Your task to perform on an android device: see sites visited before in the chrome app Image 0: 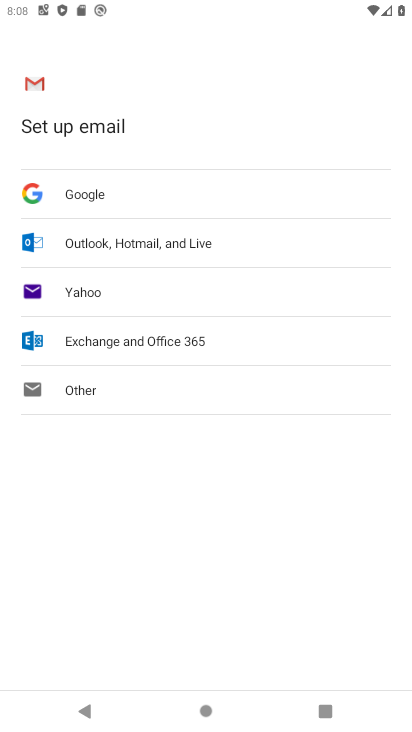
Step 0: press home button
Your task to perform on an android device: see sites visited before in the chrome app Image 1: 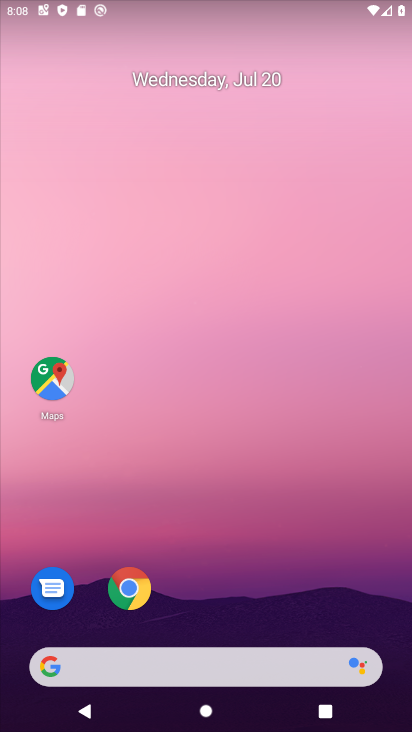
Step 1: click (143, 590)
Your task to perform on an android device: see sites visited before in the chrome app Image 2: 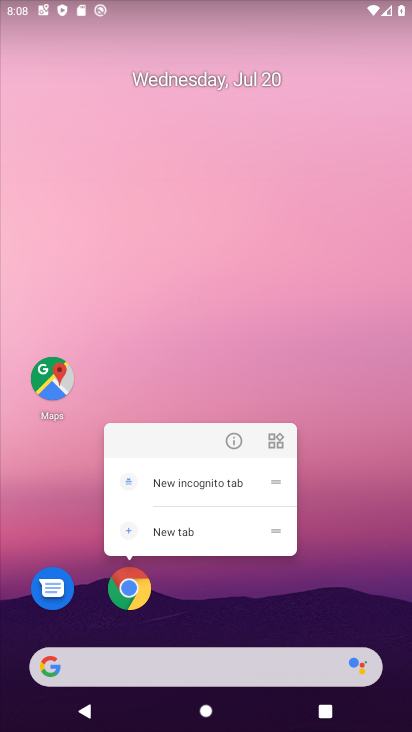
Step 2: click (144, 590)
Your task to perform on an android device: see sites visited before in the chrome app Image 3: 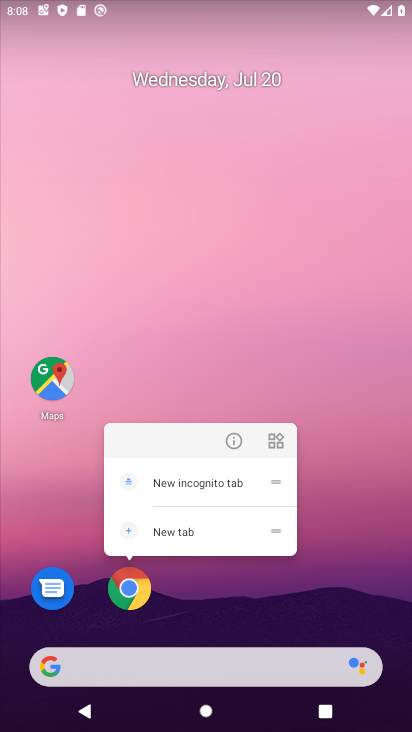
Step 3: click (144, 590)
Your task to perform on an android device: see sites visited before in the chrome app Image 4: 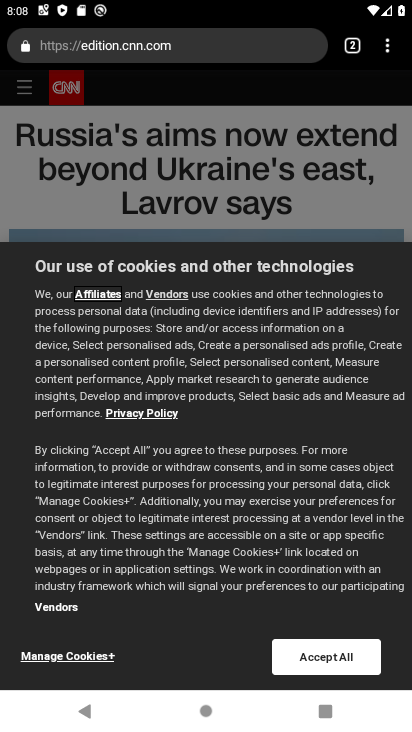
Step 4: click (390, 41)
Your task to perform on an android device: see sites visited before in the chrome app Image 5: 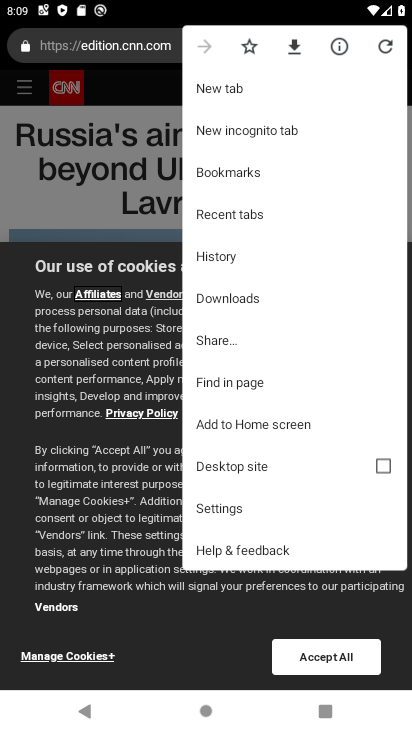
Step 5: click (251, 215)
Your task to perform on an android device: see sites visited before in the chrome app Image 6: 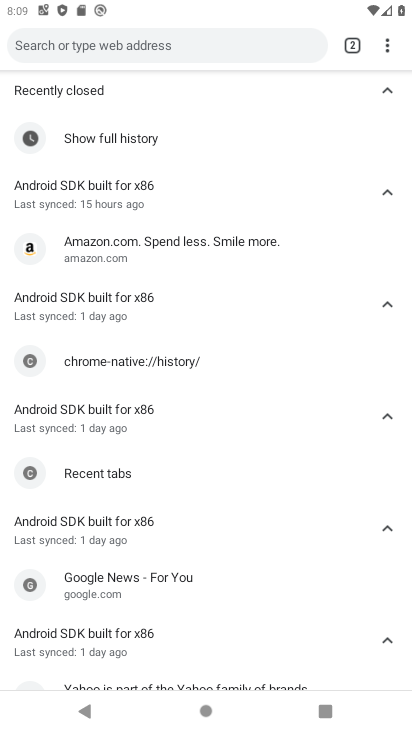
Step 6: task complete